Your task to perform on an android device: turn on airplane mode Image 0: 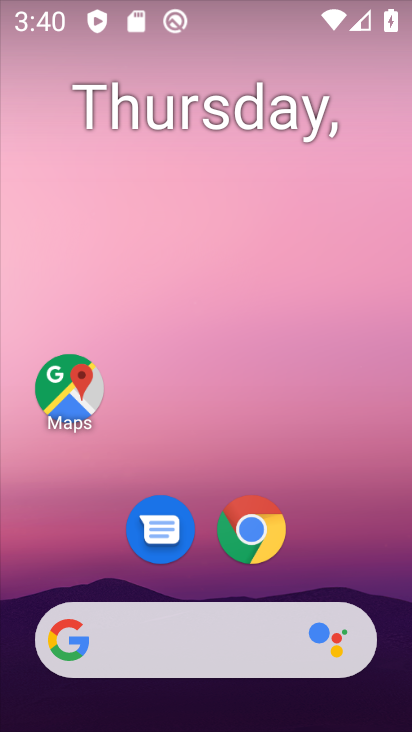
Step 0: drag from (91, 602) to (164, 62)
Your task to perform on an android device: turn on airplane mode Image 1: 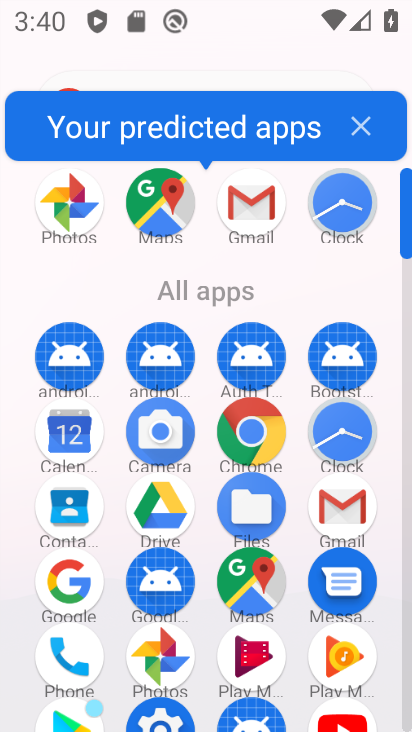
Step 1: drag from (156, 606) to (209, 345)
Your task to perform on an android device: turn on airplane mode Image 2: 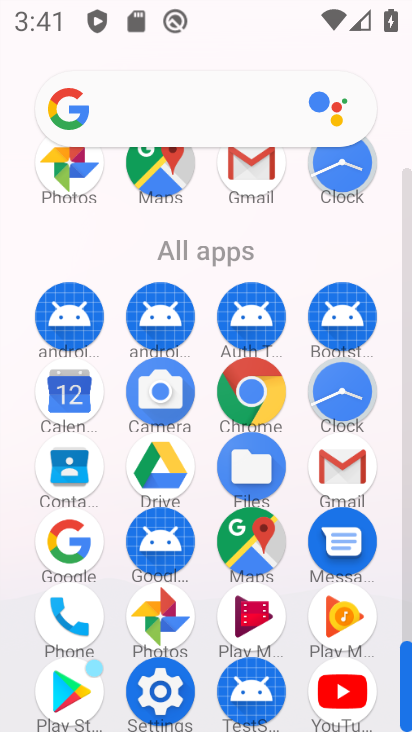
Step 2: click (160, 712)
Your task to perform on an android device: turn on airplane mode Image 3: 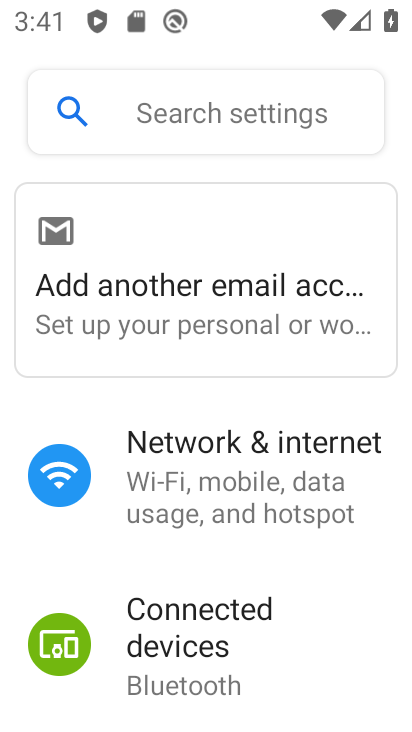
Step 3: drag from (229, 649) to (333, 380)
Your task to perform on an android device: turn on airplane mode Image 4: 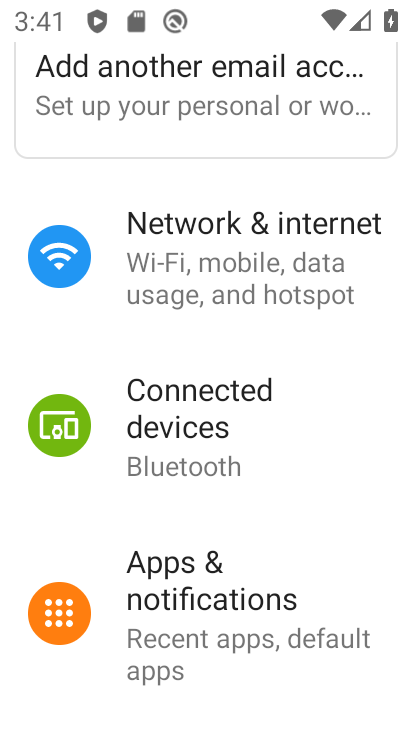
Step 4: click (287, 307)
Your task to perform on an android device: turn on airplane mode Image 5: 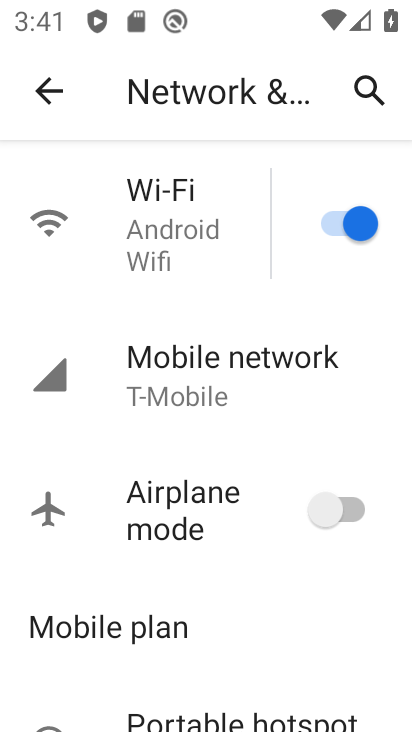
Step 5: click (351, 513)
Your task to perform on an android device: turn on airplane mode Image 6: 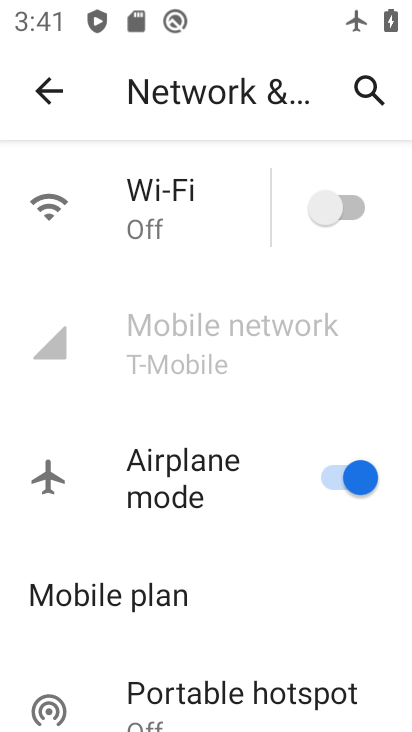
Step 6: task complete